Your task to perform on an android device: Go to internet settings Image 0: 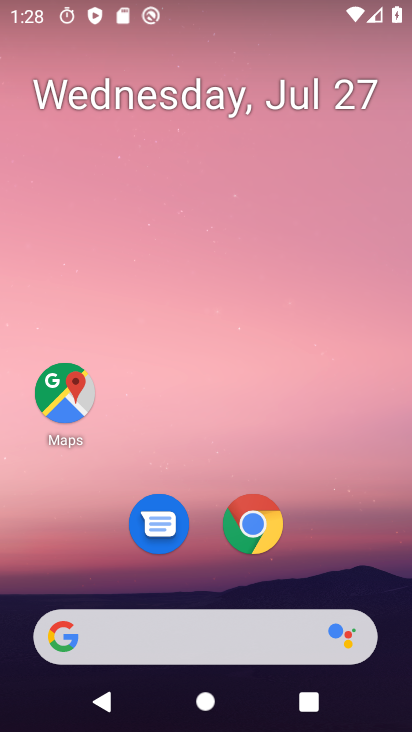
Step 0: drag from (326, 557) to (295, 92)
Your task to perform on an android device: Go to internet settings Image 1: 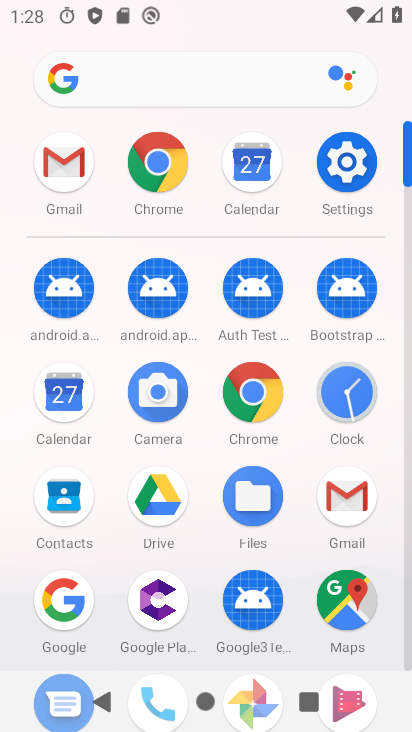
Step 1: click (347, 169)
Your task to perform on an android device: Go to internet settings Image 2: 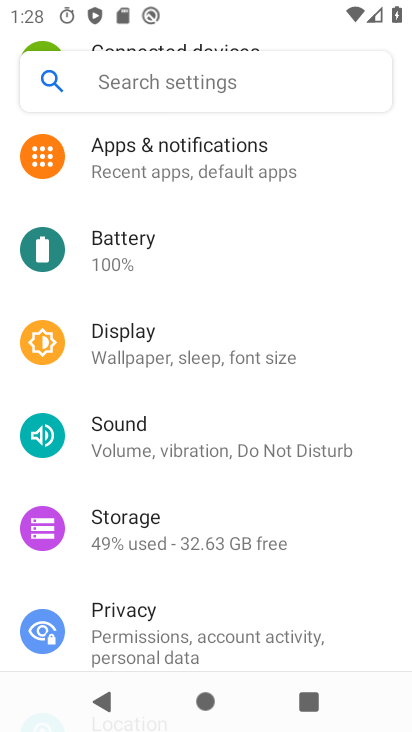
Step 2: drag from (270, 224) to (271, 576)
Your task to perform on an android device: Go to internet settings Image 3: 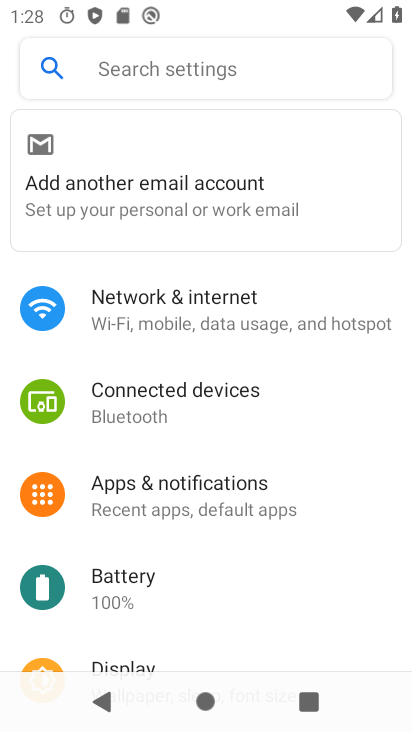
Step 3: click (199, 312)
Your task to perform on an android device: Go to internet settings Image 4: 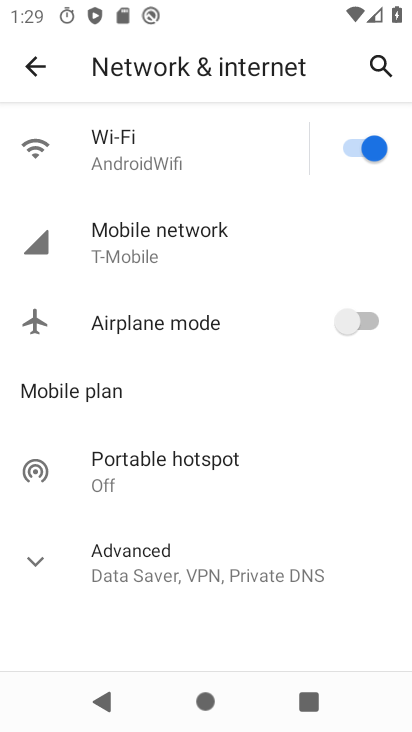
Step 4: task complete